Your task to perform on an android device: Open battery settings Image 0: 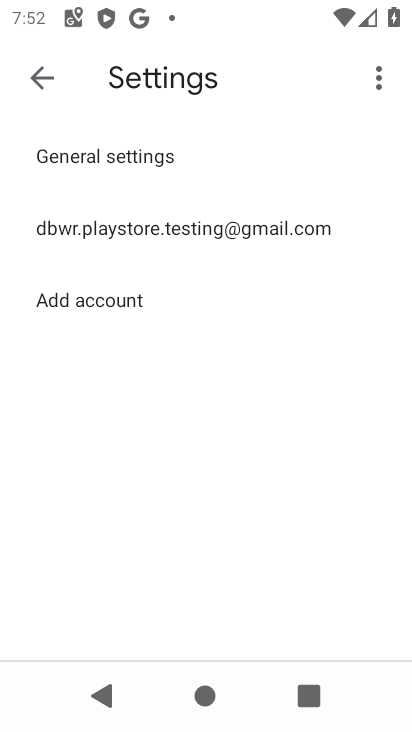
Step 0: press home button
Your task to perform on an android device: Open battery settings Image 1: 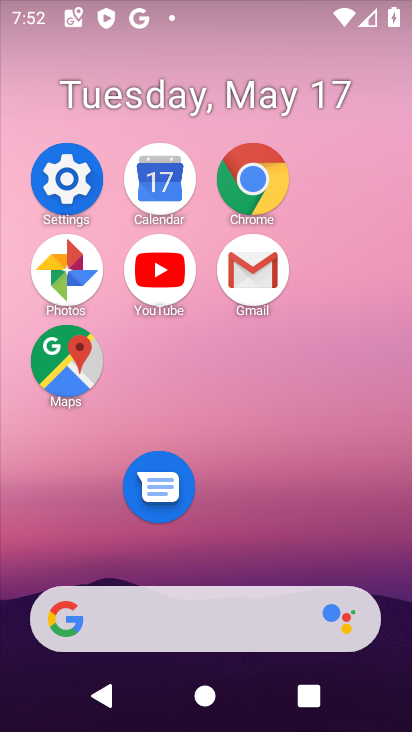
Step 1: click (47, 188)
Your task to perform on an android device: Open battery settings Image 2: 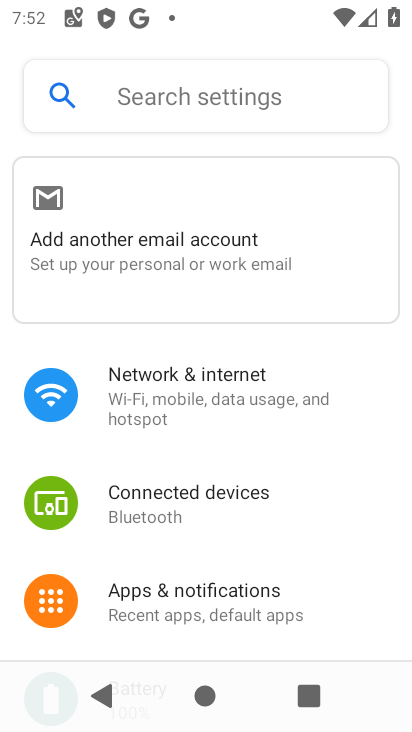
Step 2: drag from (225, 436) to (195, 126)
Your task to perform on an android device: Open battery settings Image 3: 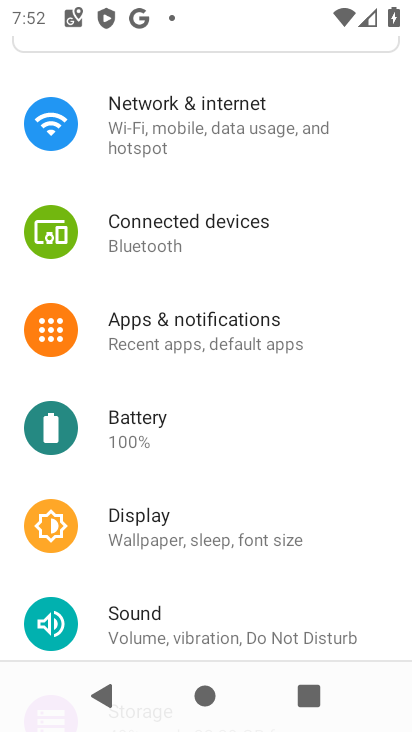
Step 3: click (210, 468)
Your task to perform on an android device: Open battery settings Image 4: 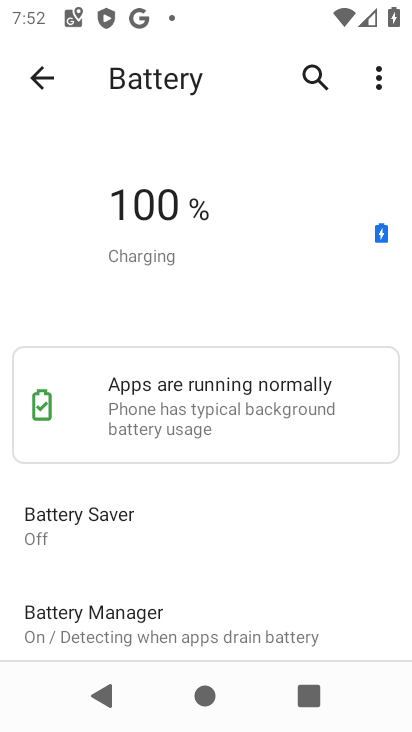
Step 4: task complete